Your task to perform on an android device: snooze an email in the gmail app Image 0: 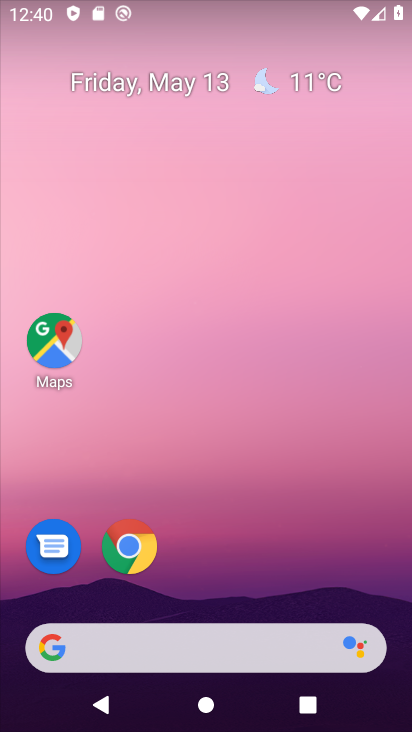
Step 0: drag from (243, 631) to (350, 229)
Your task to perform on an android device: snooze an email in the gmail app Image 1: 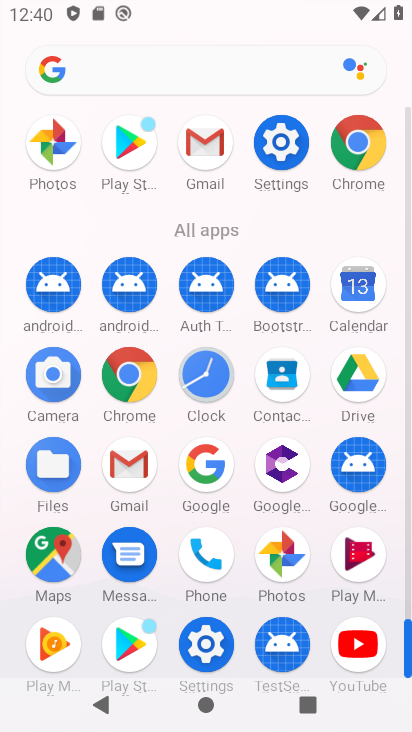
Step 1: drag from (253, 538) to (307, 327)
Your task to perform on an android device: snooze an email in the gmail app Image 2: 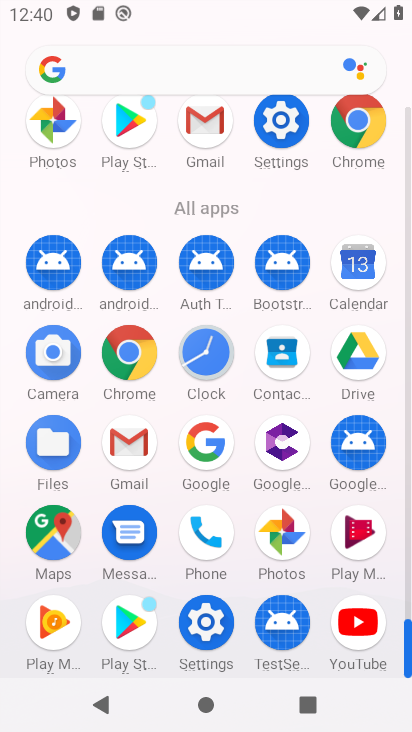
Step 2: drag from (281, 469) to (345, 273)
Your task to perform on an android device: snooze an email in the gmail app Image 3: 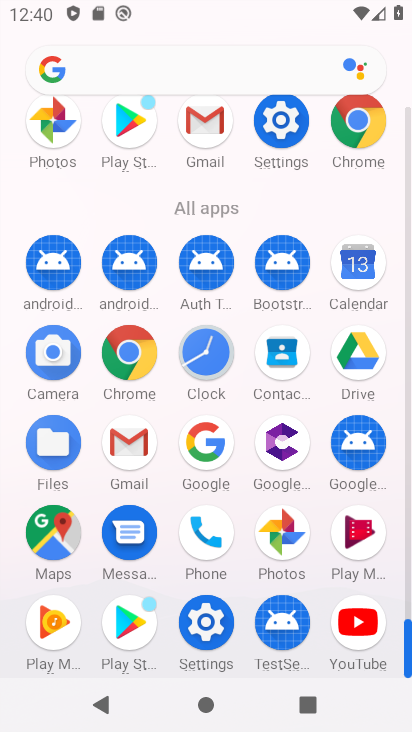
Step 3: click (143, 463)
Your task to perform on an android device: snooze an email in the gmail app Image 4: 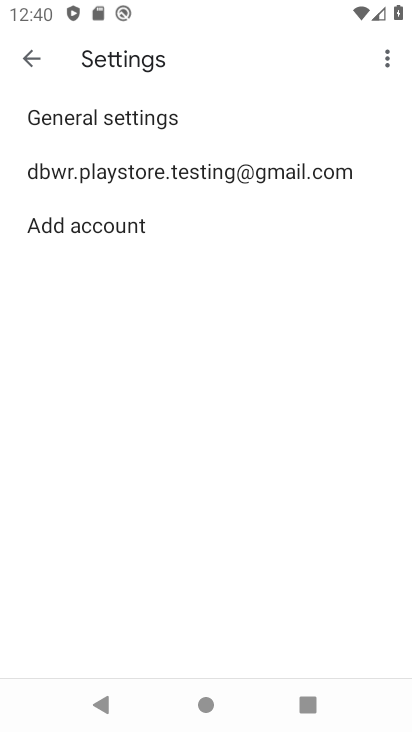
Step 4: click (39, 67)
Your task to perform on an android device: snooze an email in the gmail app Image 5: 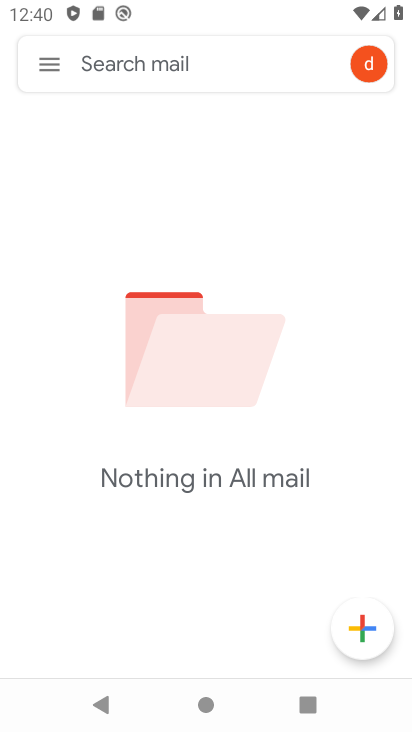
Step 5: click (57, 80)
Your task to perform on an android device: snooze an email in the gmail app Image 6: 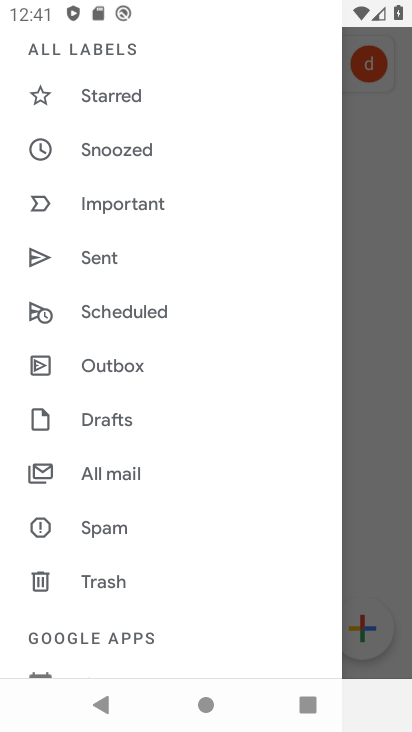
Step 6: click (95, 485)
Your task to perform on an android device: snooze an email in the gmail app Image 7: 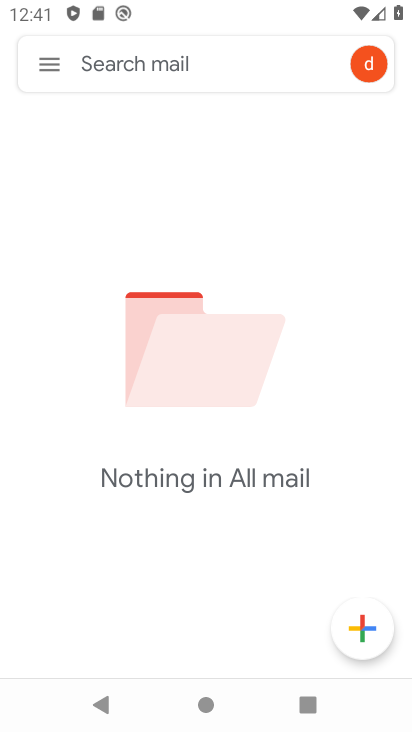
Step 7: task complete